Your task to perform on an android device: Go to Android settings Image 0: 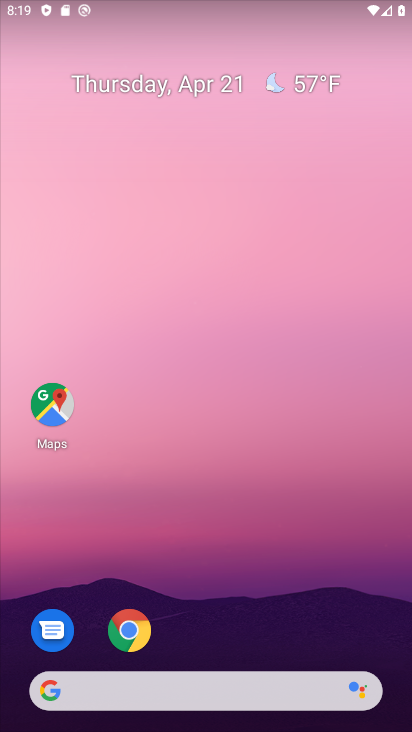
Step 0: drag from (308, 614) to (294, 58)
Your task to perform on an android device: Go to Android settings Image 1: 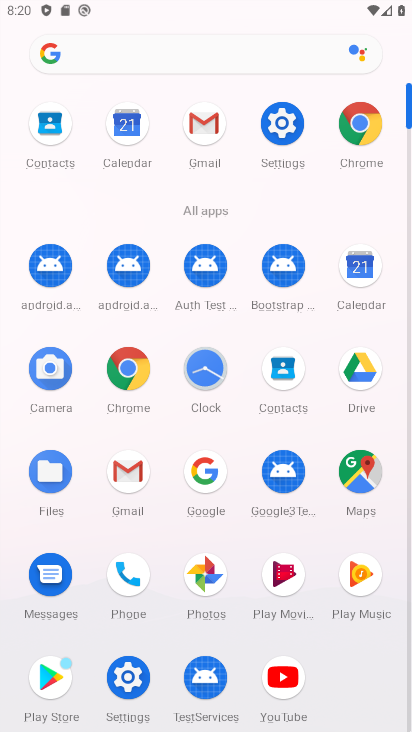
Step 1: click (117, 678)
Your task to perform on an android device: Go to Android settings Image 2: 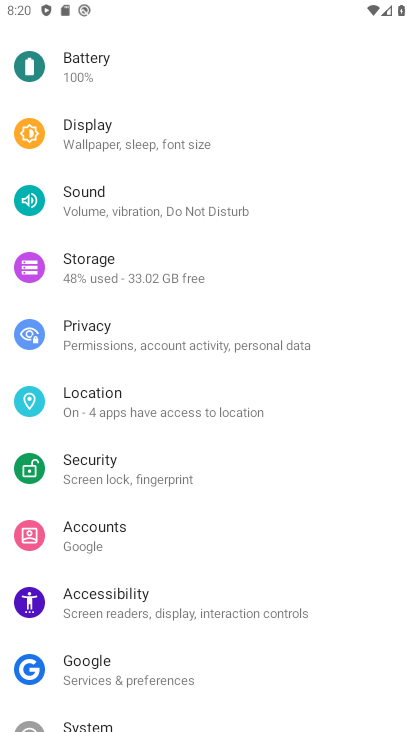
Step 2: drag from (112, 676) to (221, 370)
Your task to perform on an android device: Go to Android settings Image 3: 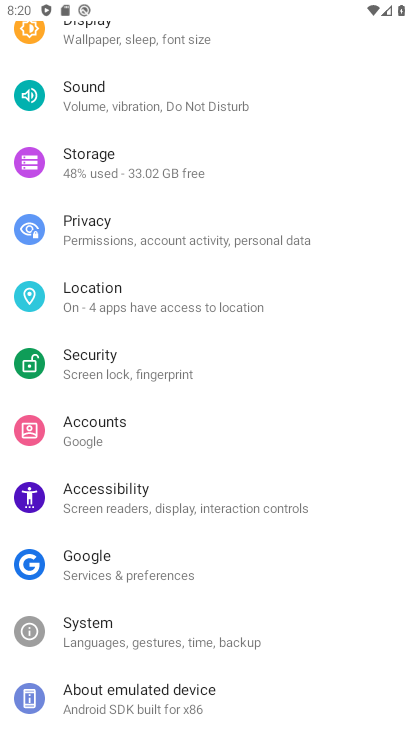
Step 3: click (131, 716)
Your task to perform on an android device: Go to Android settings Image 4: 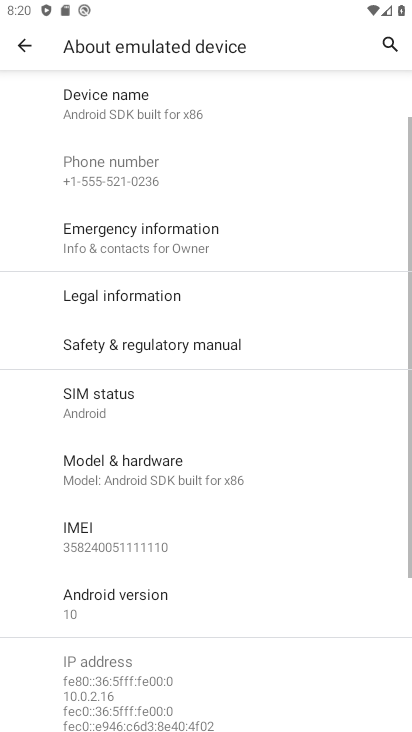
Step 4: click (198, 608)
Your task to perform on an android device: Go to Android settings Image 5: 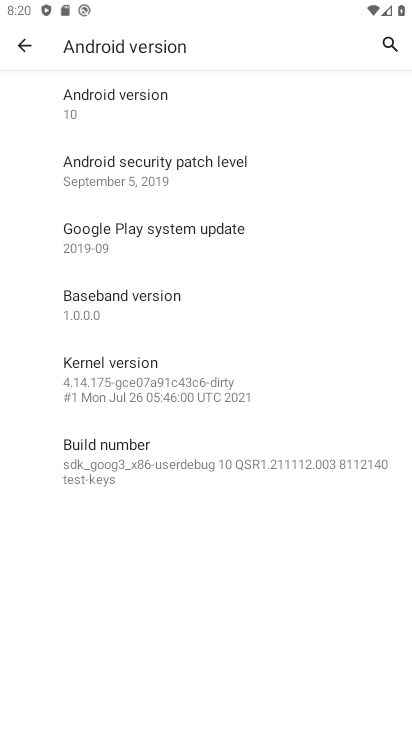
Step 5: task complete